Your task to perform on an android device: turn on the 12-hour format for clock Image 0: 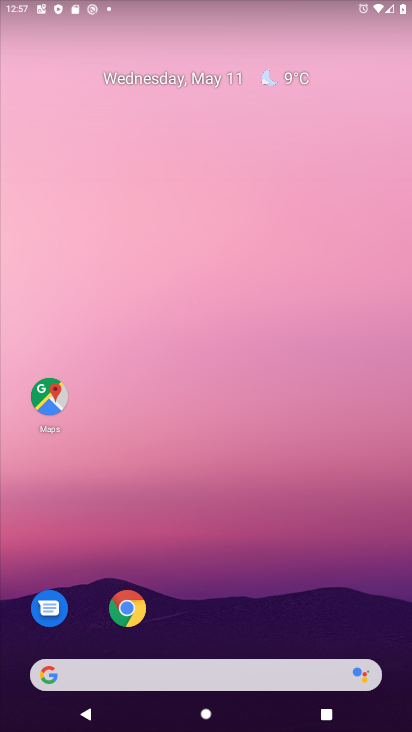
Step 0: drag from (195, 602) to (129, 1)
Your task to perform on an android device: turn on the 12-hour format for clock Image 1: 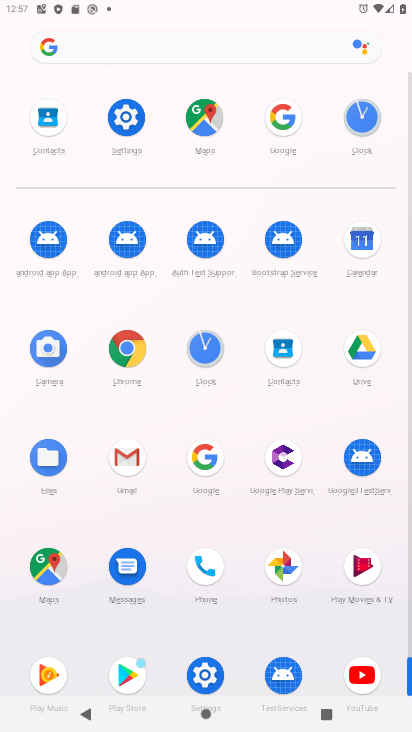
Step 1: click (130, 143)
Your task to perform on an android device: turn on the 12-hour format for clock Image 2: 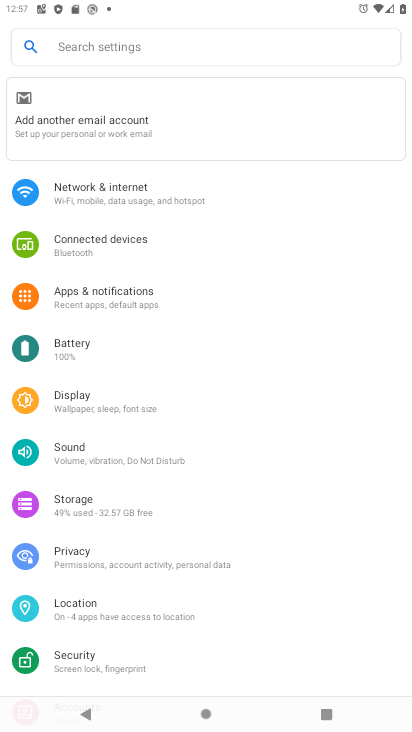
Step 2: drag from (281, 435) to (284, 150)
Your task to perform on an android device: turn on the 12-hour format for clock Image 3: 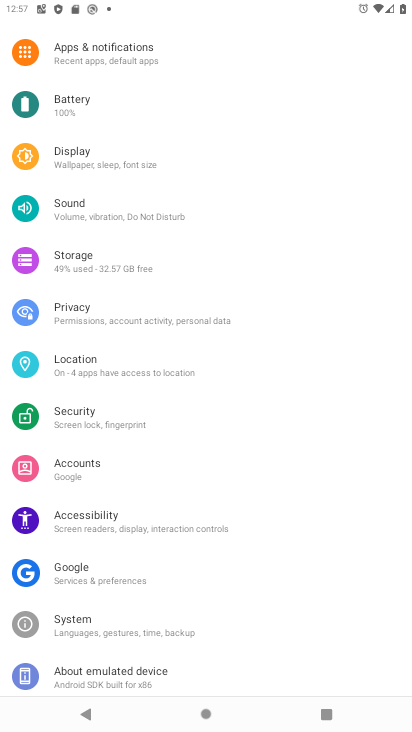
Step 3: drag from (234, 529) to (226, 327)
Your task to perform on an android device: turn on the 12-hour format for clock Image 4: 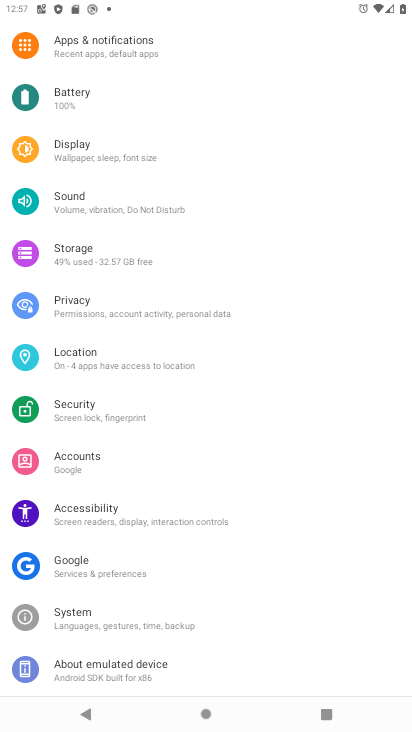
Step 4: press home button
Your task to perform on an android device: turn on the 12-hour format for clock Image 5: 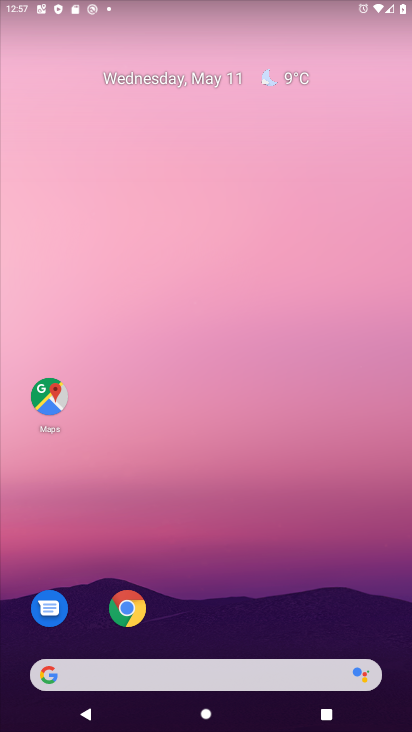
Step 5: drag from (356, 549) to (370, 85)
Your task to perform on an android device: turn on the 12-hour format for clock Image 6: 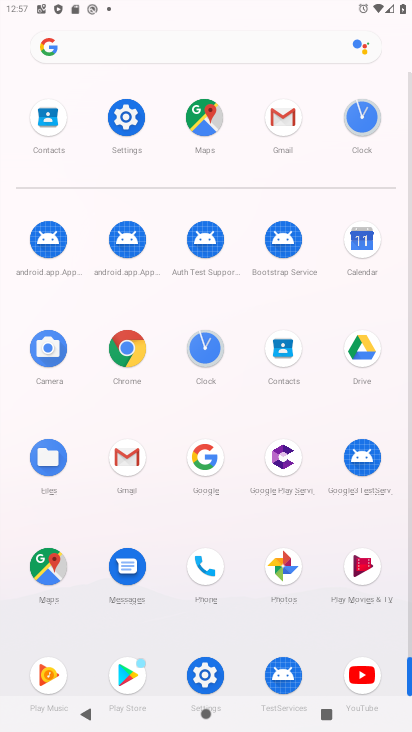
Step 6: click (216, 354)
Your task to perform on an android device: turn on the 12-hour format for clock Image 7: 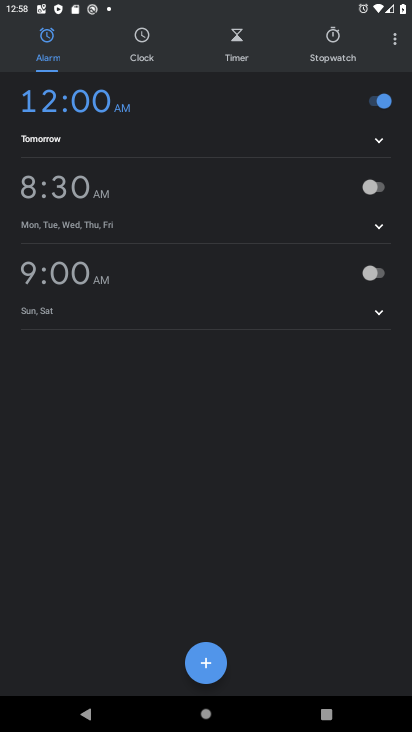
Step 7: click (216, 354)
Your task to perform on an android device: turn on the 12-hour format for clock Image 8: 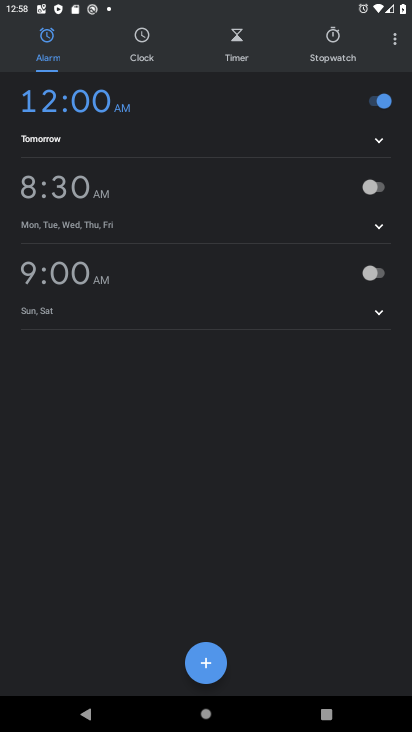
Step 8: click (216, 354)
Your task to perform on an android device: turn on the 12-hour format for clock Image 9: 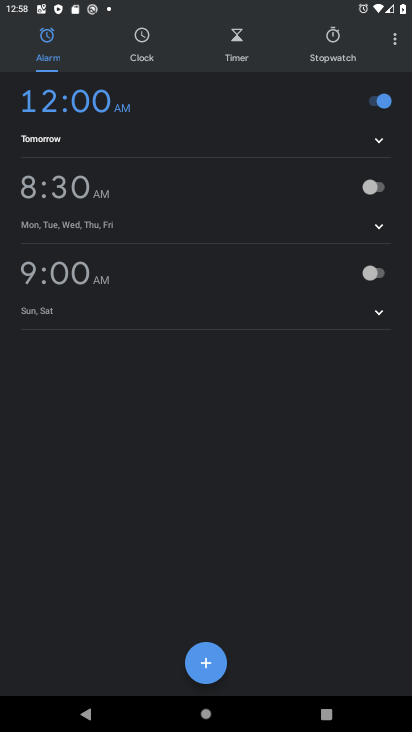
Step 9: click (216, 354)
Your task to perform on an android device: turn on the 12-hour format for clock Image 10: 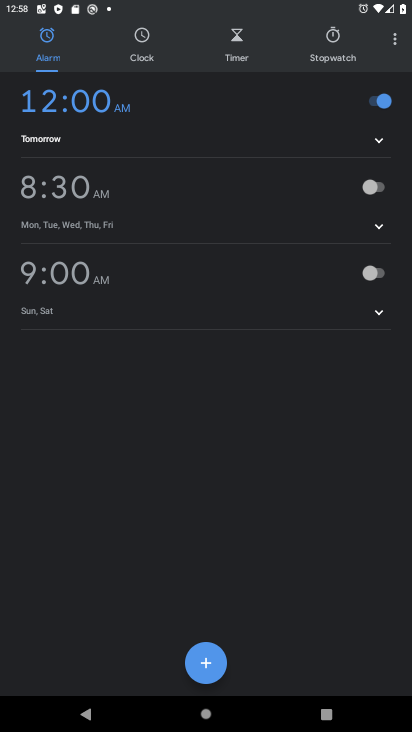
Step 10: click (399, 39)
Your task to perform on an android device: turn on the 12-hour format for clock Image 11: 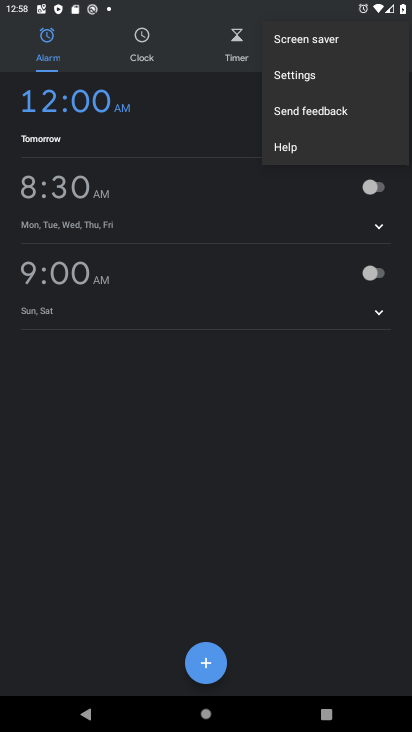
Step 11: click (323, 68)
Your task to perform on an android device: turn on the 12-hour format for clock Image 12: 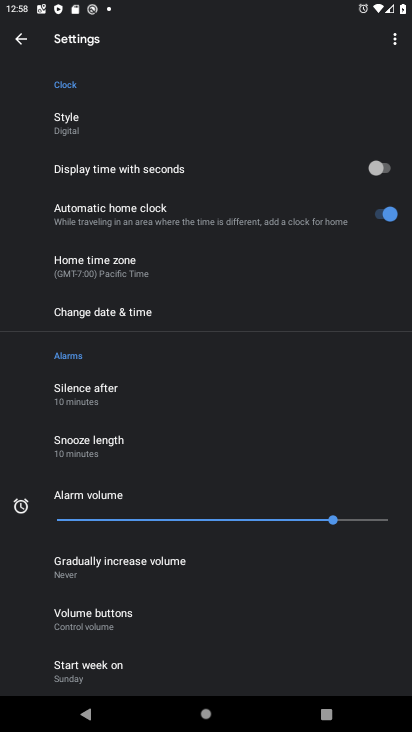
Step 12: click (172, 311)
Your task to perform on an android device: turn on the 12-hour format for clock Image 13: 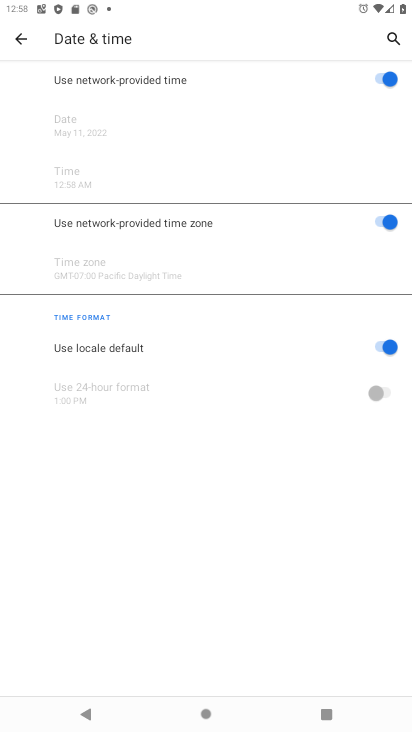
Step 13: task complete